Your task to perform on an android device: Open Google Chrome Image 0: 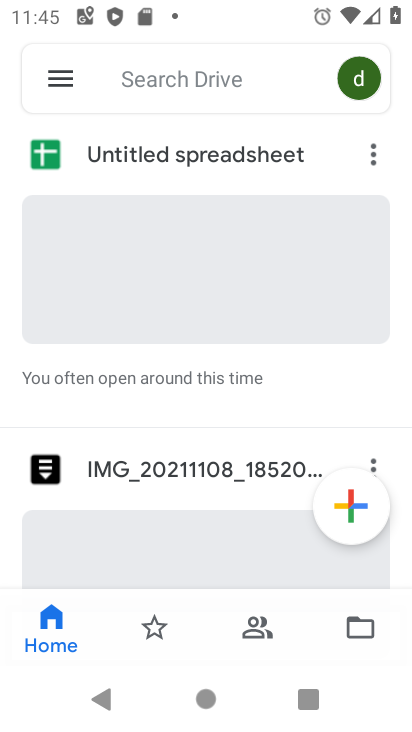
Step 0: press home button
Your task to perform on an android device: Open Google Chrome Image 1: 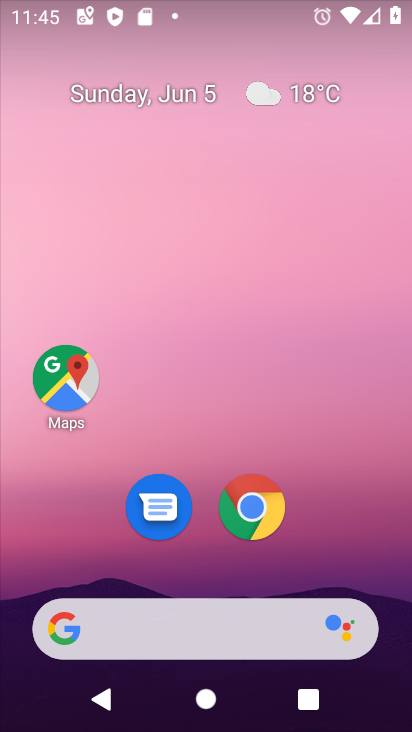
Step 1: click (252, 507)
Your task to perform on an android device: Open Google Chrome Image 2: 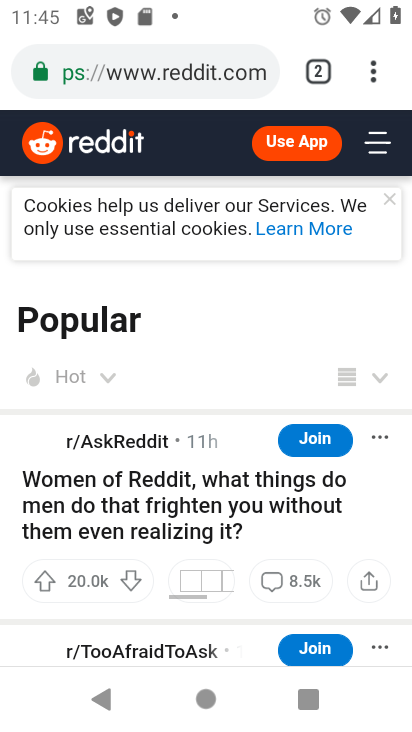
Step 2: task complete